Your task to perform on an android device: Clear the cart on ebay.com. Search for "panasonic triple a" on ebay.com, select the first entry, and add it to the cart. Image 0: 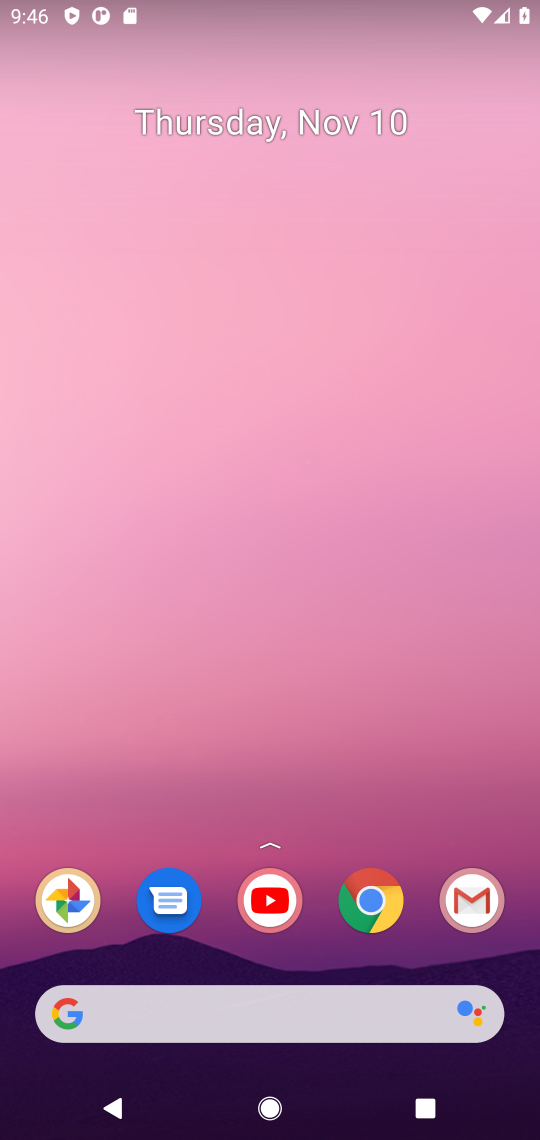
Step 0: press home button
Your task to perform on an android device: Clear the cart on ebay.com. Search for "panasonic triple a" on ebay.com, select the first entry, and add it to the cart. Image 1: 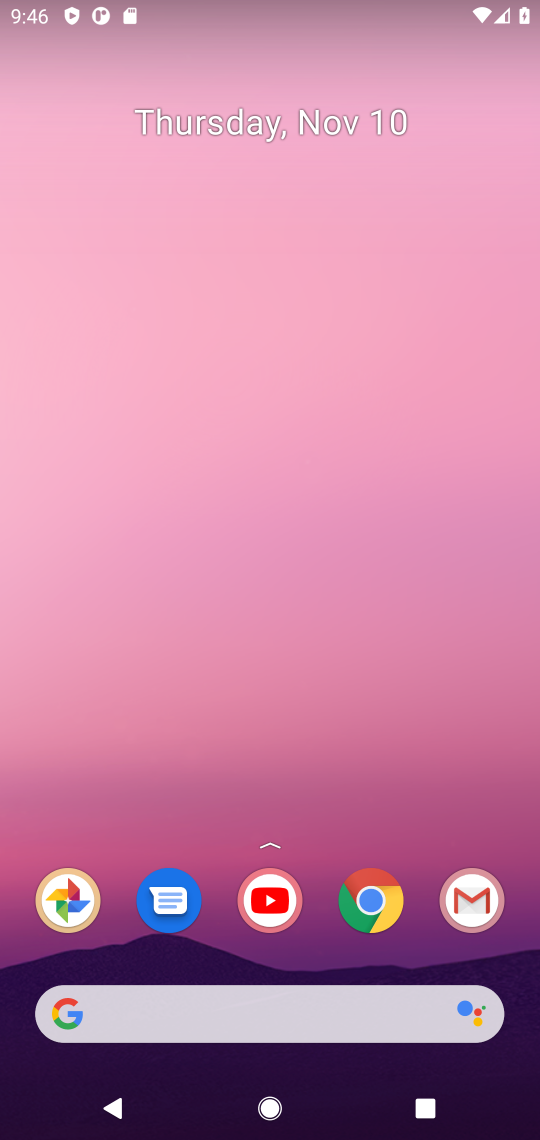
Step 1: click (374, 899)
Your task to perform on an android device: Clear the cart on ebay.com. Search for "panasonic triple a" on ebay.com, select the first entry, and add it to the cart. Image 2: 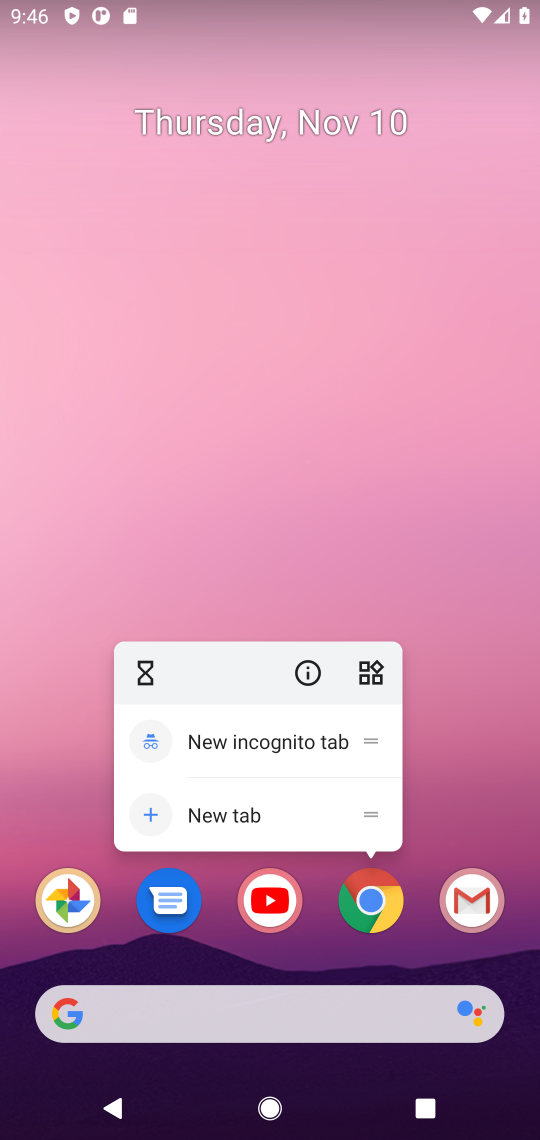
Step 2: click (374, 902)
Your task to perform on an android device: Clear the cart on ebay.com. Search for "panasonic triple a" on ebay.com, select the first entry, and add it to the cart. Image 3: 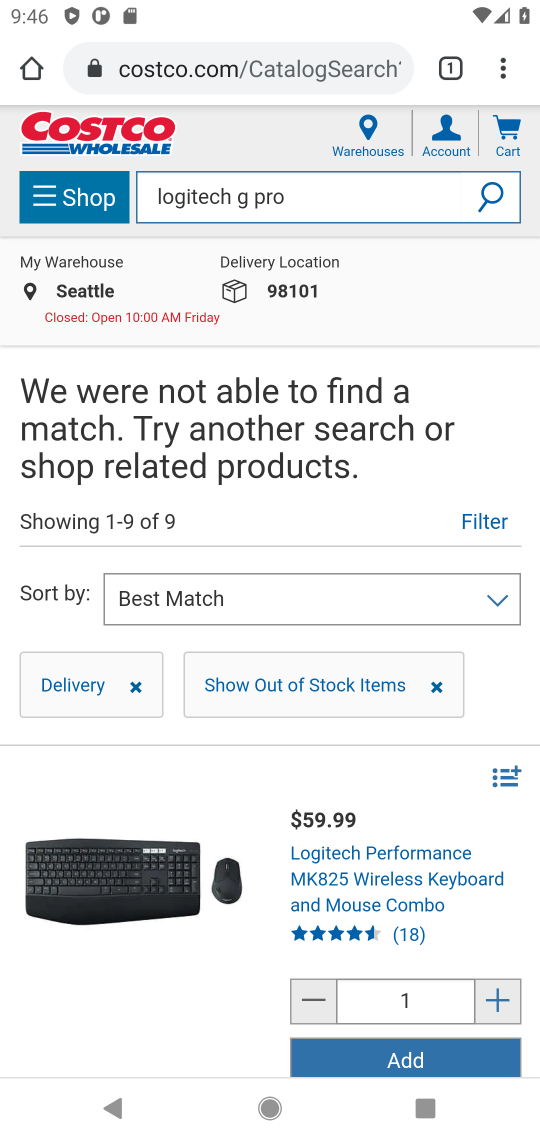
Step 3: click (235, 70)
Your task to perform on an android device: Clear the cart on ebay.com. Search for "panasonic triple a" on ebay.com, select the first entry, and add it to the cart. Image 4: 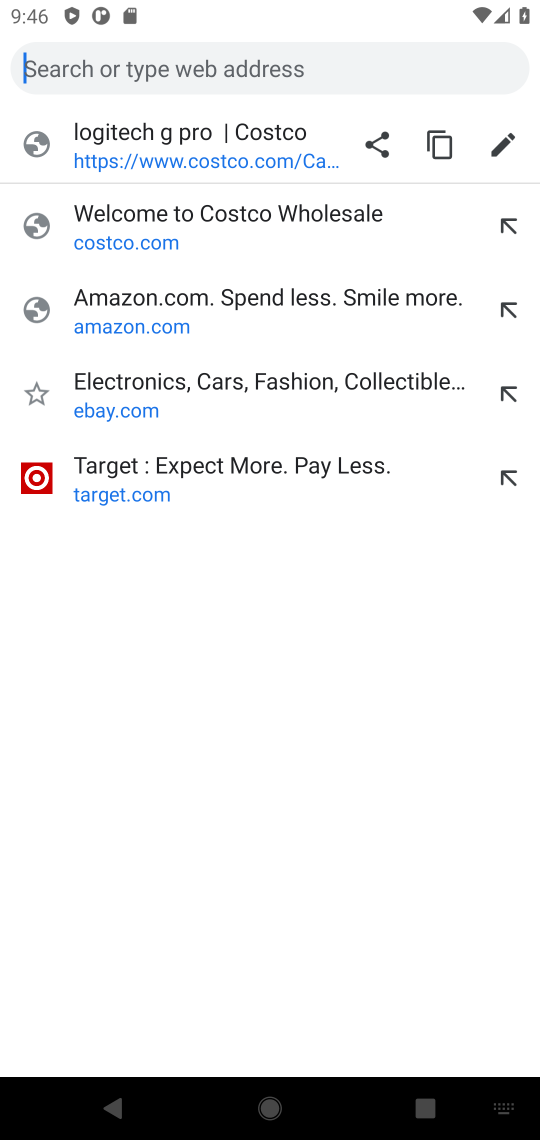
Step 4: type "ebay.com"
Your task to perform on an android device: Clear the cart on ebay.com. Search for "panasonic triple a" on ebay.com, select the first entry, and add it to the cart. Image 5: 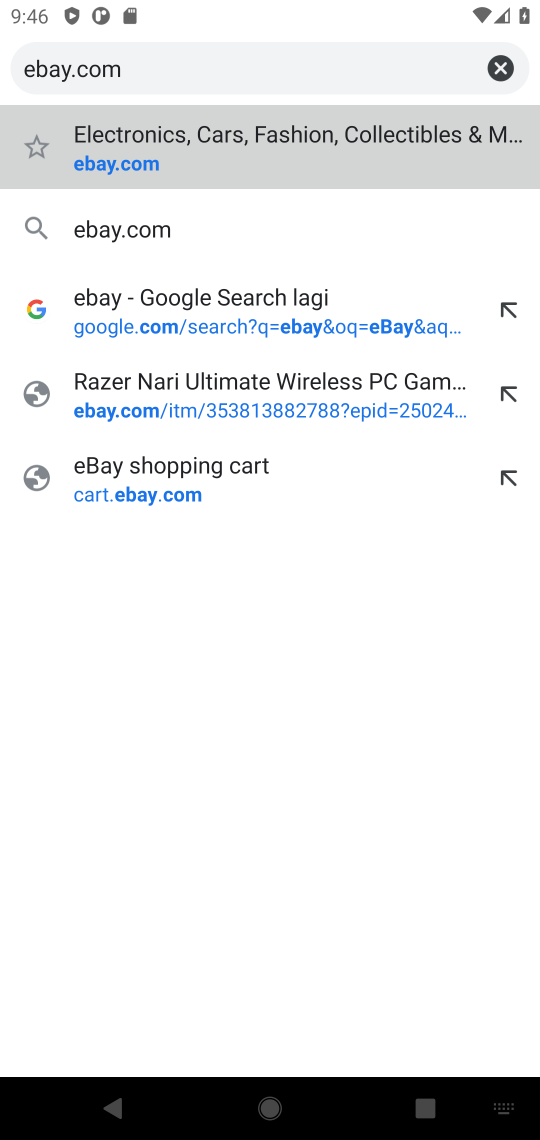
Step 5: press enter
Your task to perform on an android device: Clear the cart on ebay.com. Search for "panasonic triple a" on ebay.com, select the first entry, and add it to the cart. Image 6: 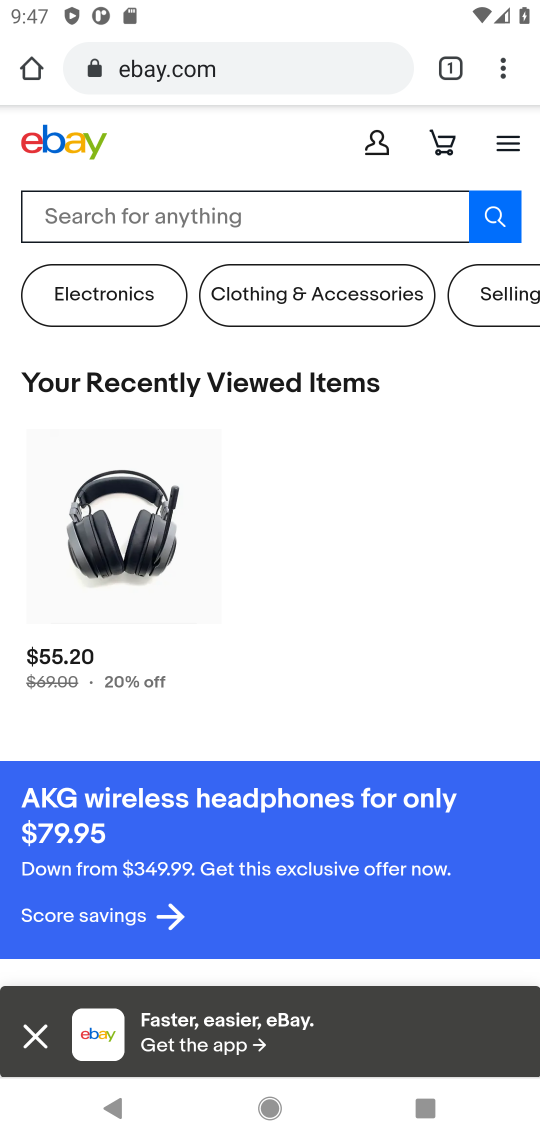
Step 6: click (148, 205)
Your task to perform on an android device: Clear the cart on ebay.com. Search for "panasonic triple a" on ebay.com, select the first entry, and add it to the cart. Image 7: 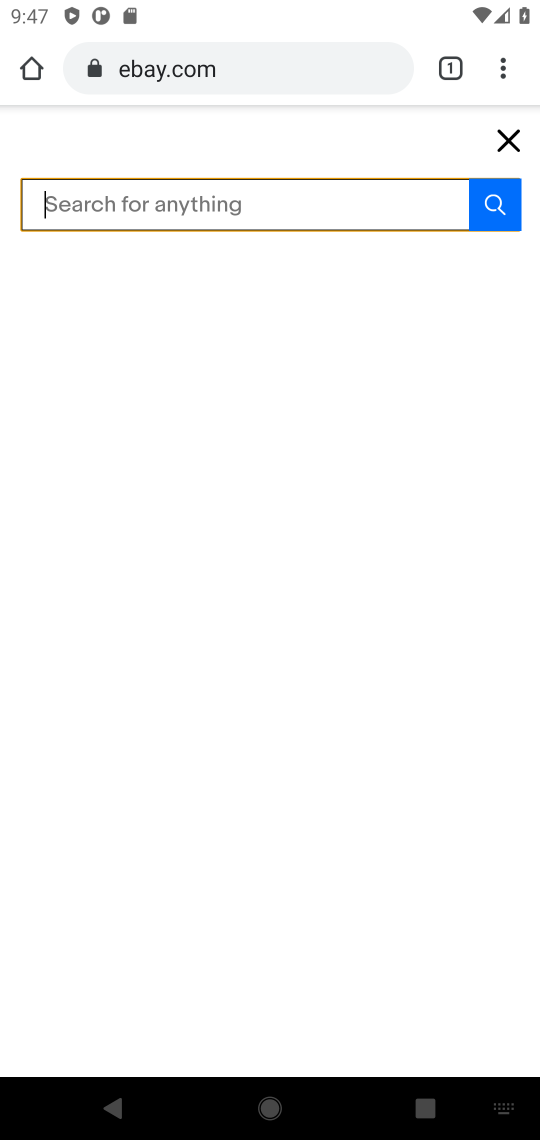
Step 7: type "panasonic triple a"
Your task to perform on an android device: Clear the cart on ebay.com. Search for "panasonic triple a" on ebay.com, select the first entry, and add it to the cart. Image 8: 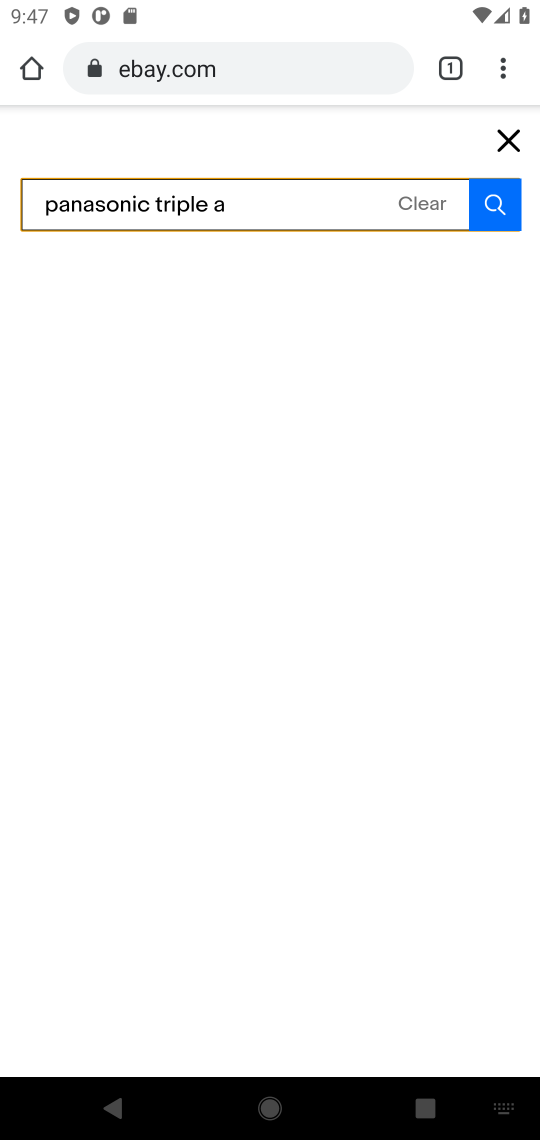
Step 8: press enter
Your task to perform on an android device: Clear the cart on ebay.com. Search for "panasonic triple a" on ebay.com, select the first entry, and add it to the cart. Image 9: 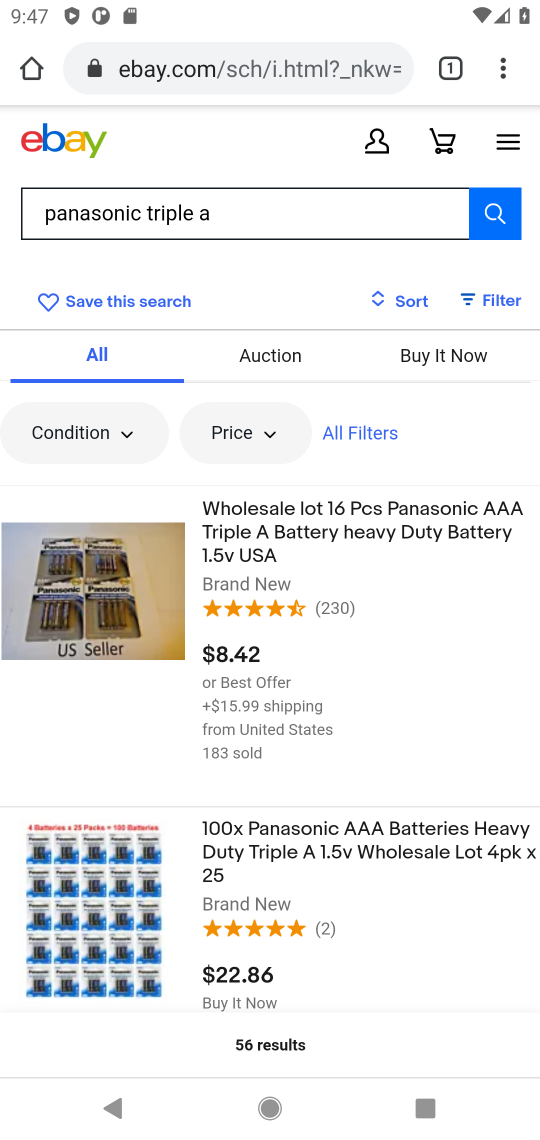
Step 9: click (305, 529)
Your task to perform on an android device: Clear the cart on ebay.com. Search for "panasonic triple a" on ebay.com, select the first entry, and add it to the cart. Image 10: 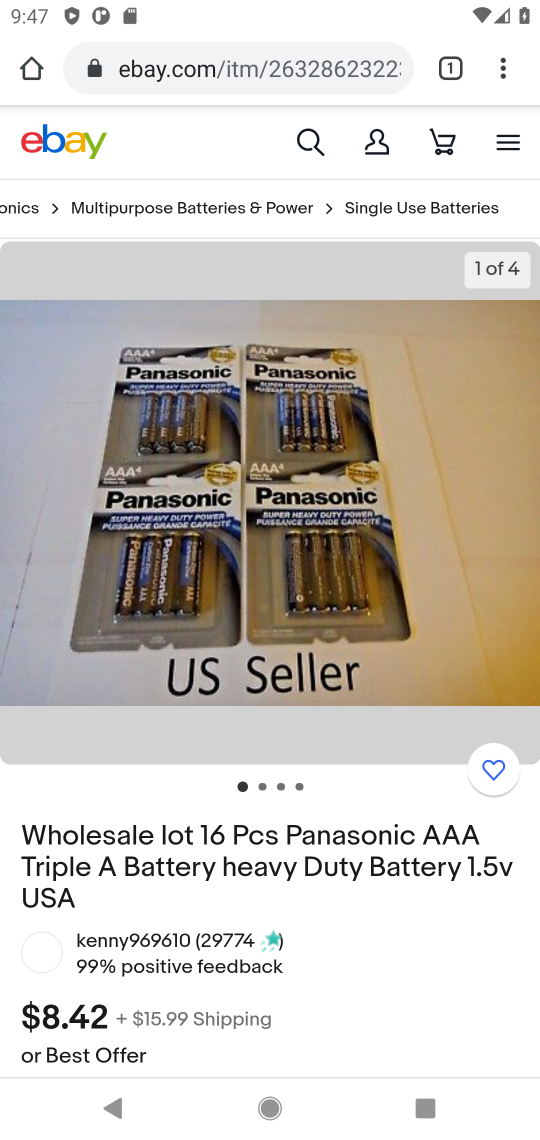
Step 10: drag from (391, 949) to (444, 271)
Your task to perform on an android device: Clear the cart on ebay.com. Search for "panasonic triple a" on ebay.com, select the first entry, and add it to the cart. Image 11: 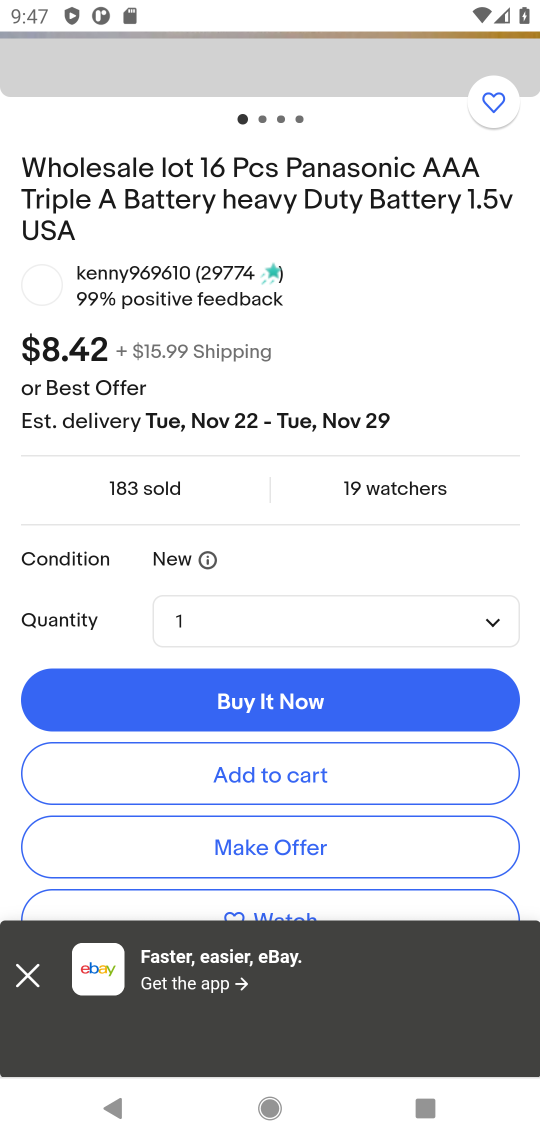
Step 11: click (277, 774)
Your task to perform on an android device: Clear the cart on ebay.com. Search for "panasonic triple a" on ebay.com, select the first entry, and add it to the cart. Image 12: 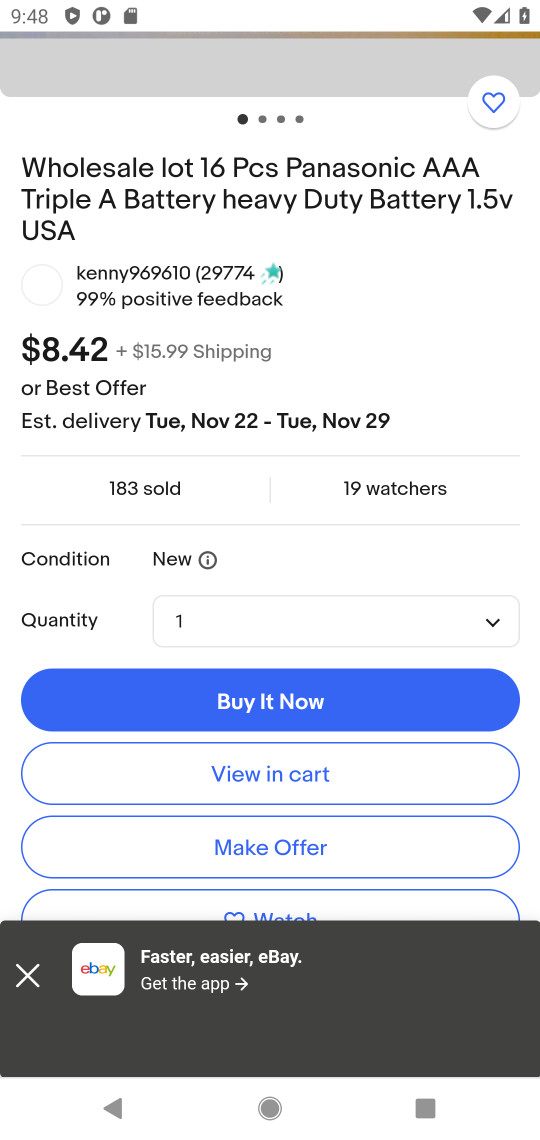
Step 12: click (288, 770)
Your task to perform on an android device: Clear the cart on ebay.com. Search for "panasonic triple a" on ebay.com, select the first entry, and add it to the cart. Image 13: 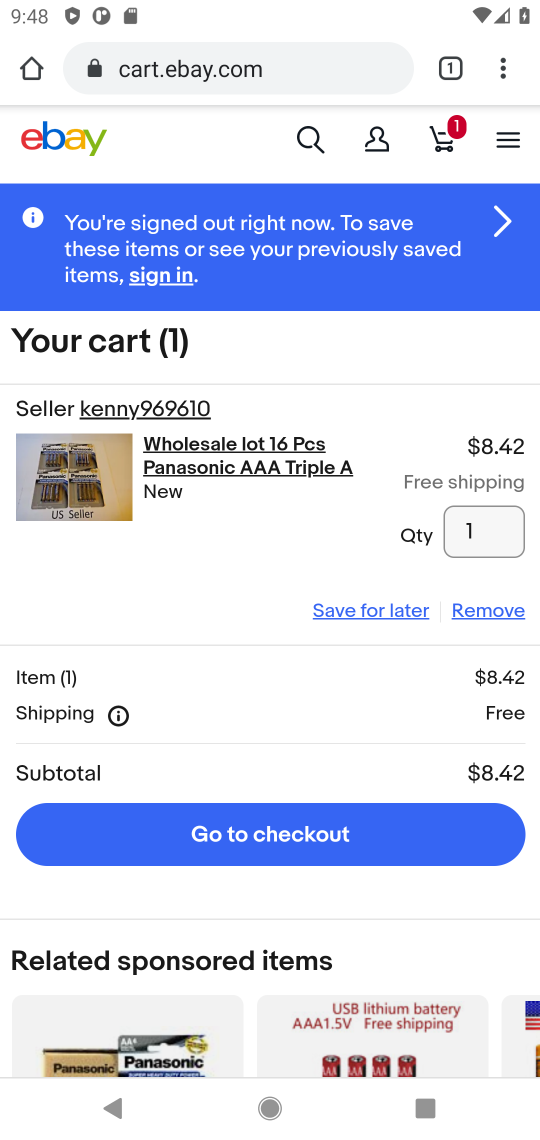
Step 13: task complete